Your task to perform on an android device: Open Android settings Image 0: 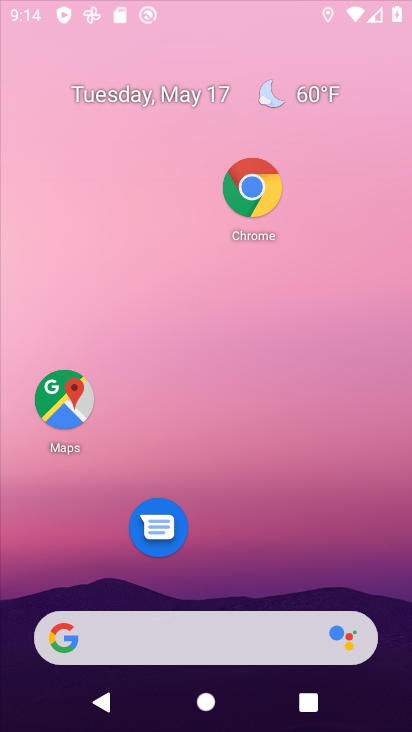
Step 0: drag from (323, 303) to (350, 102)
Your task to perform on an android device: Open Android settings Image 1: 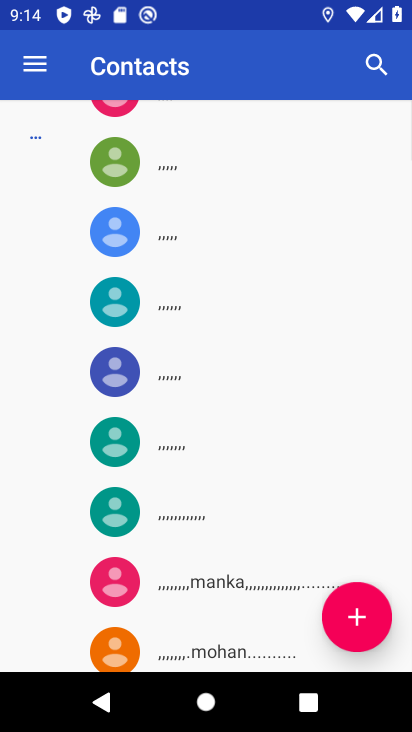
Step 1: press home button
Your task to perform on an android device: Open Android settings Image 2: 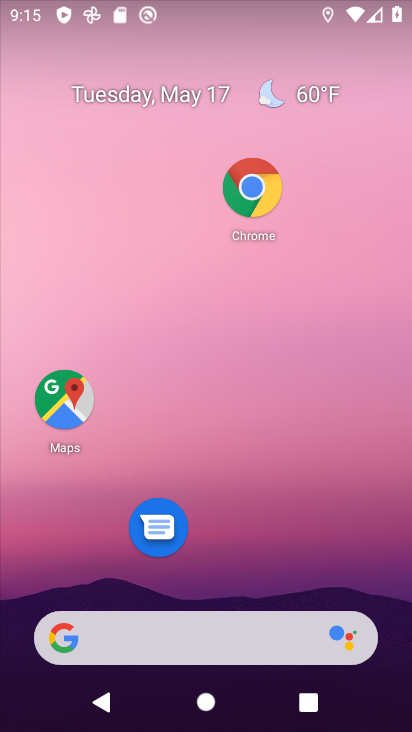
Step 2: drag from (289, 575) to (294, 26)
Your task to perform on an android device: Open Android settings Image 3: 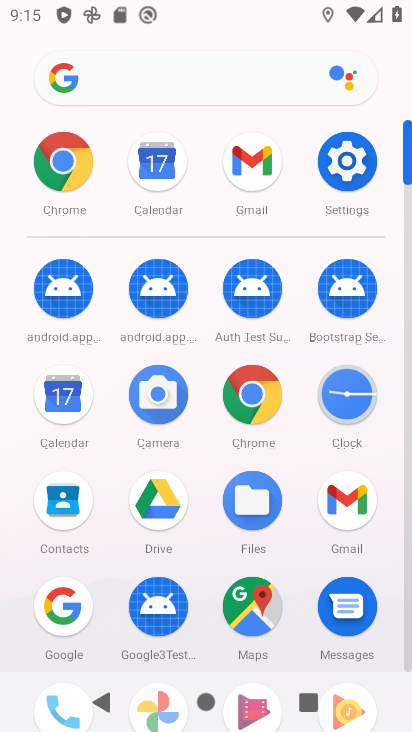
Step 3: click (336, 179)
Your task to perform on an android device: Open Android settings Image 4: 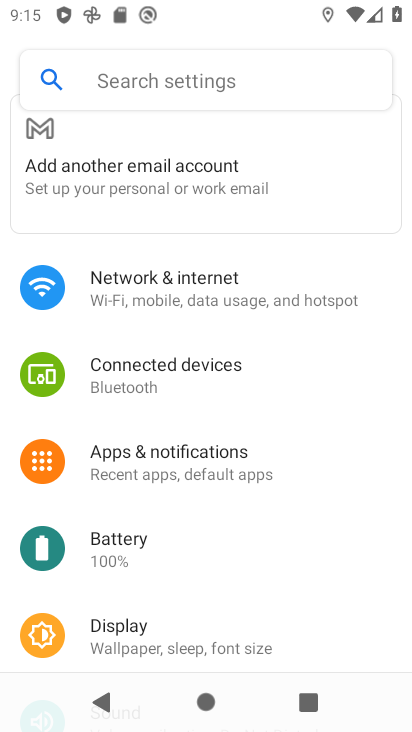
Step 4: task complete